Your task to perform on an android device: Show me popular videos on Youtube Image 0: 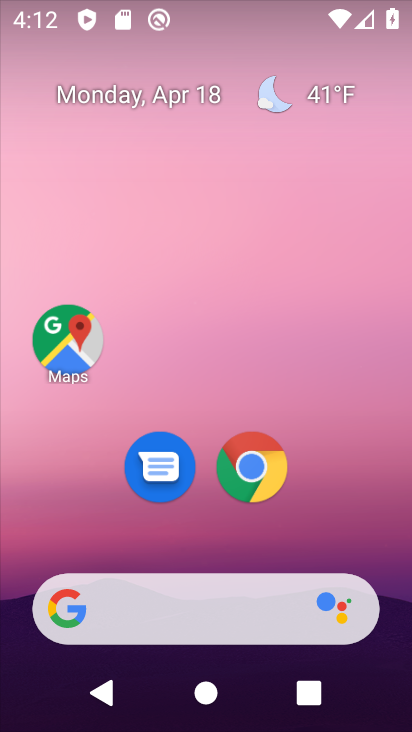
Step 0: drag from (212, 548) to (246, 123)
Your task to perform on an android device: Show me popular videos on Youtube Image 1: 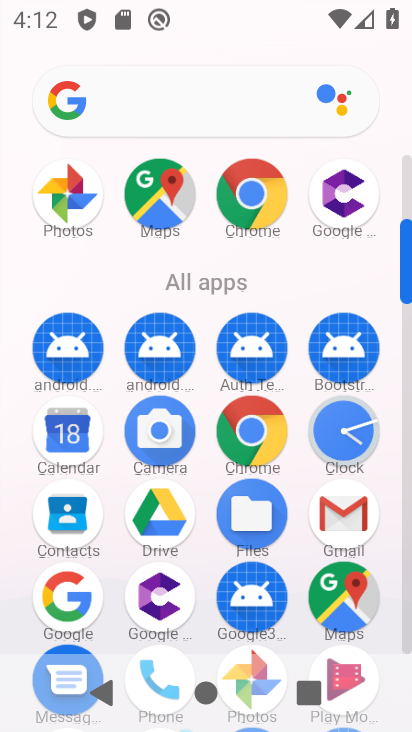
Step 1: drag from (293, 497) to (293, 268)
Your task to perform on an android device: Show me popular videos on Youtube Image 2: 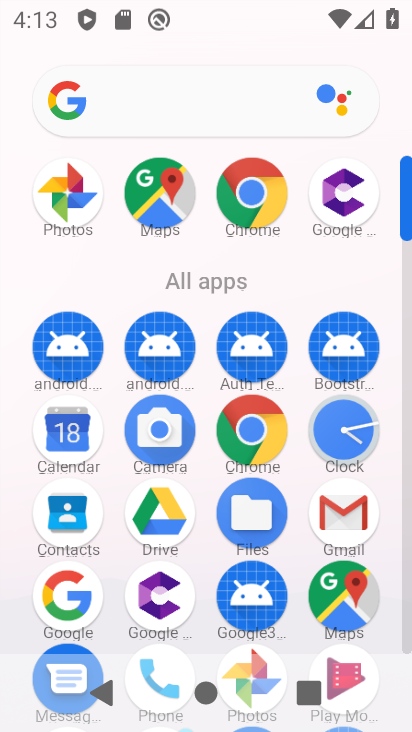
Step 2: drag from (199, 489) to (199, 133)
Your task to perform on an android device: Show me popular videos on Youtube Image 3: 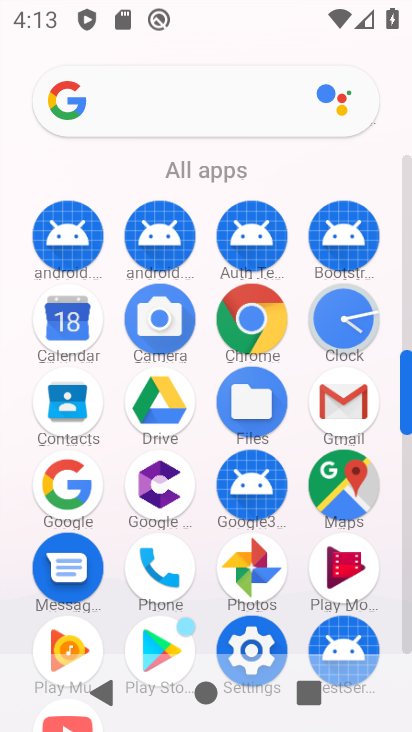
Step 3: drag from (207, 604) to (190, 135)
Your task to perform on an android device: Show me popular videos on Youtube Image 4: 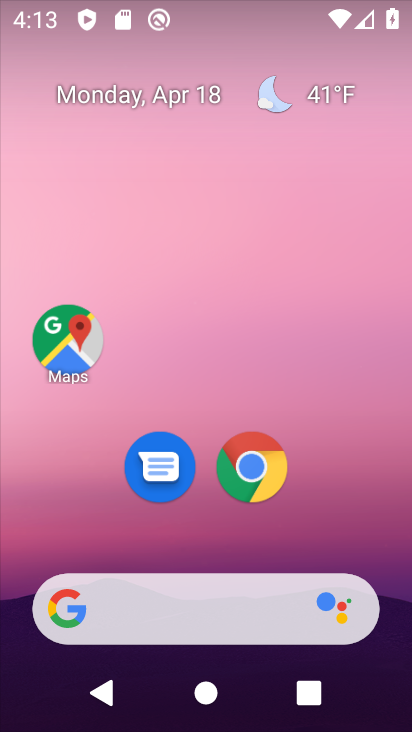
Step 4: drag from (214, 541) to (230, 179)
Your task to perform on an android device: Show me popular videos on Youtube Image 5: 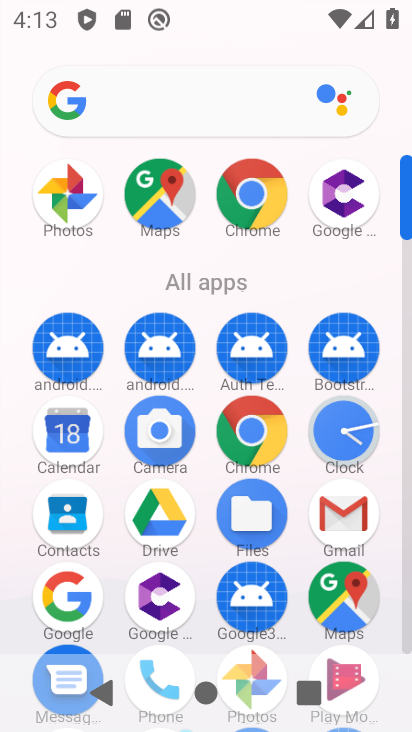
Step 5: drag from (206, 562) to (204, 132)
Your task to perform on an android device: Show me popular videos on Youtube Image 6: 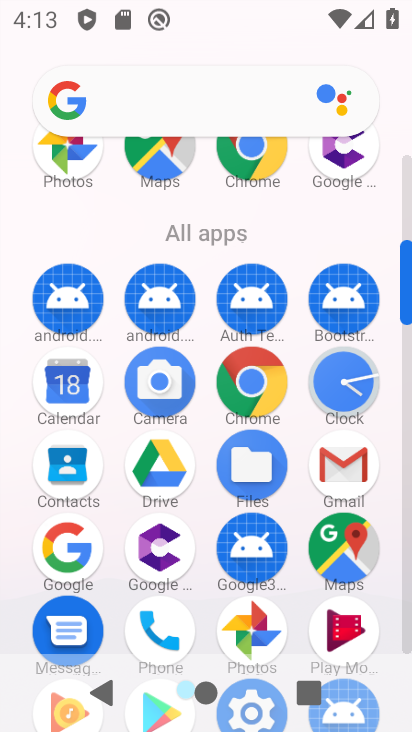
Step 6: drag from (204, 505) to (204, 144)
Your task to perform on an android device: Show me popular videos on Youtube Image 7: 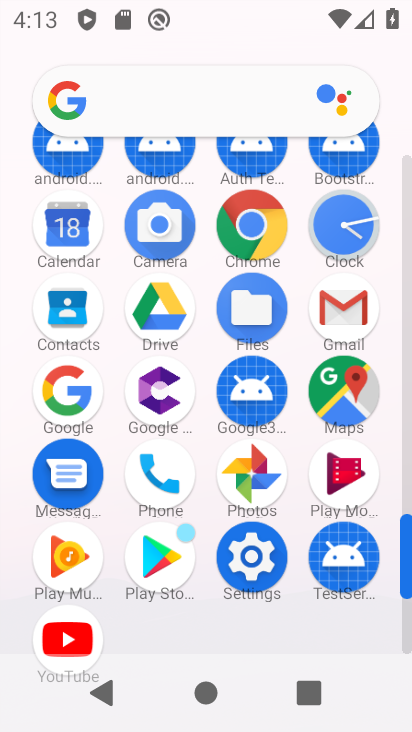
Step 7: click (64, 638)
Your task to perform on an android device: Show me popular videos on Youtube Image 8: 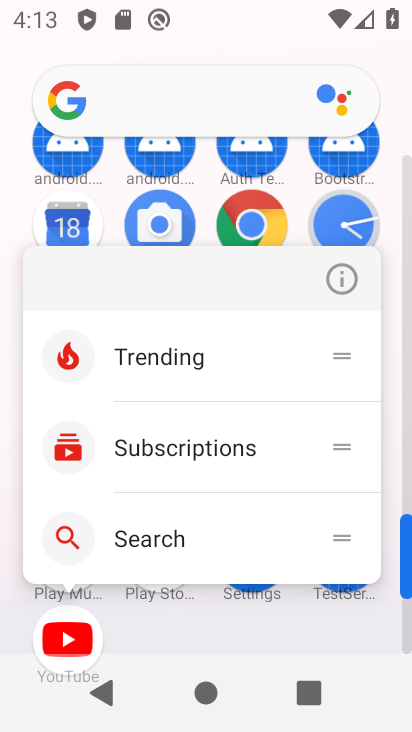
Step 8: click (85, 622)
Your task to perform on an android device: Show me popular videos on Youtube Image 9: 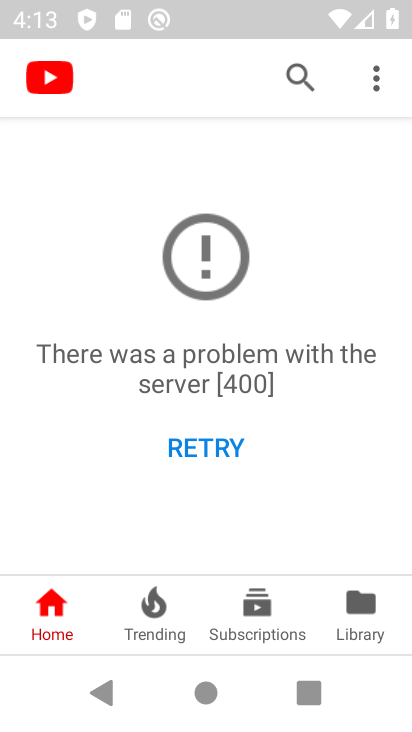
Step 9: click (144, 595)
Your task to perform on an android device: Show me popular videos on Youtube Image 10: 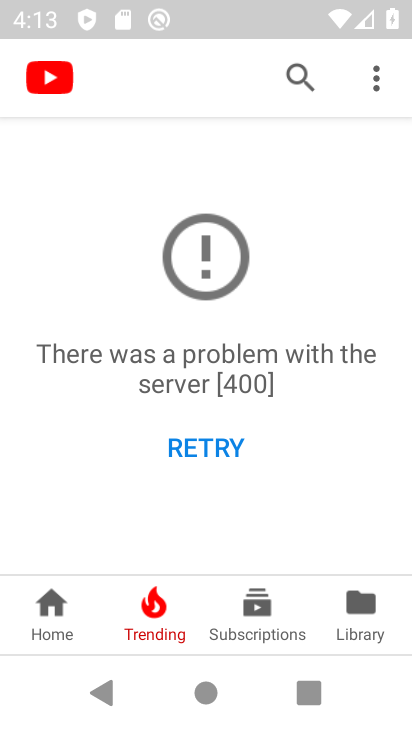
Step 10: task complete